Your task to perform on an android device: see creations saved in the google photos Image 0: 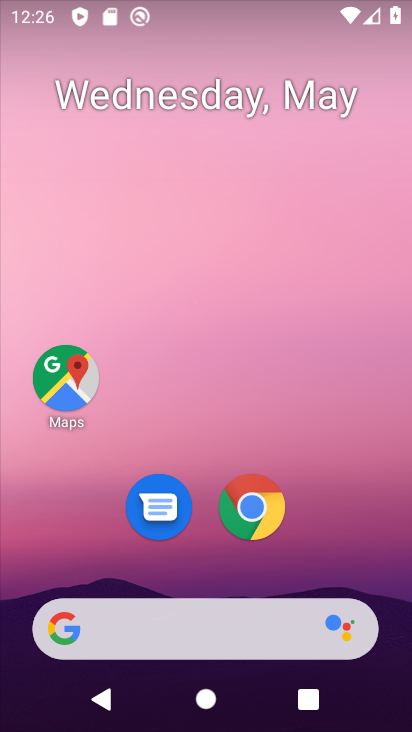
Step 0: drag from (395, 593) to (357, 104)
Your task to perform on an android device: see creations saved in the google photos Image 1: 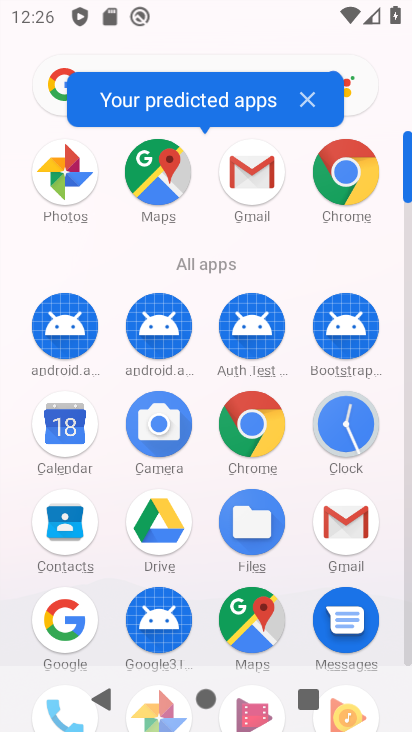
Step 1: click (408, 646)
Your task to perform on an android device: see creations saved in the google photos Image 2: 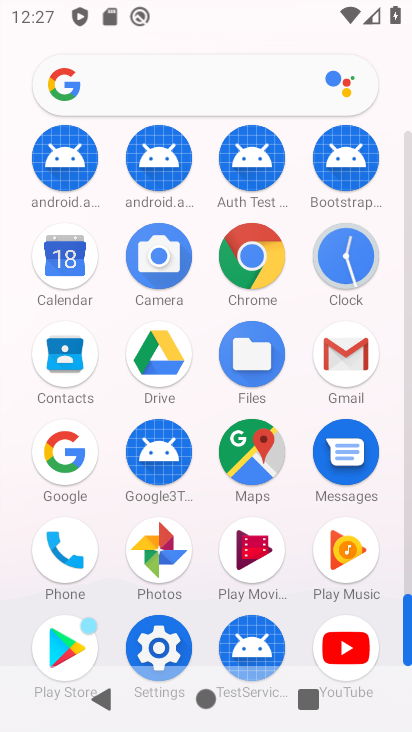
Step 2: click (155, 551)
Your task to perform on an android device: see creations saved in the google photos Image 3: 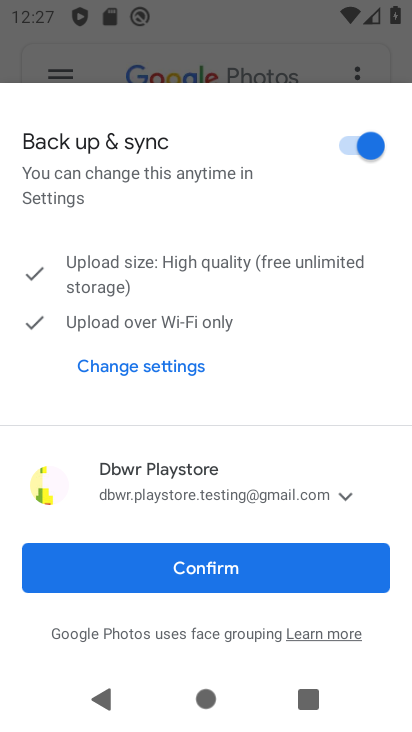
Step 3: click (189, 563)
Your task to perform on an android device: see creations saved in the google photos Image 4: 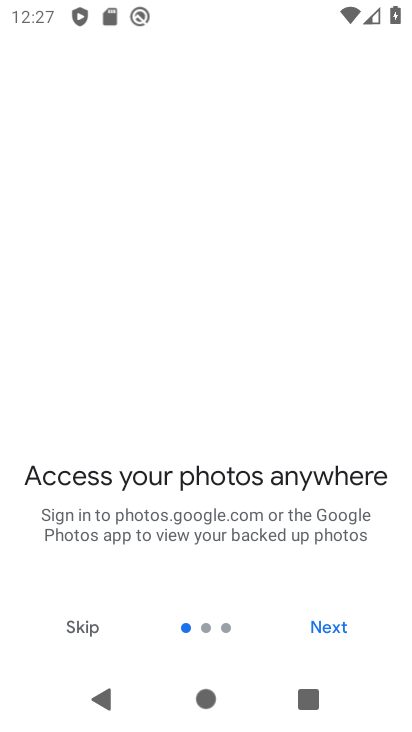
Step 4: click (84, 630)
Your task to perform on an android device: see creations saved in the google photos Image 5: 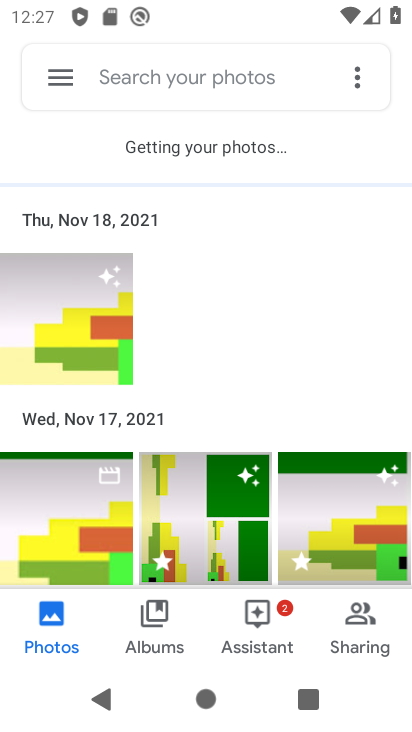
Step 5: task complete